Your task to perform on an android device: change timer sound Image 0: 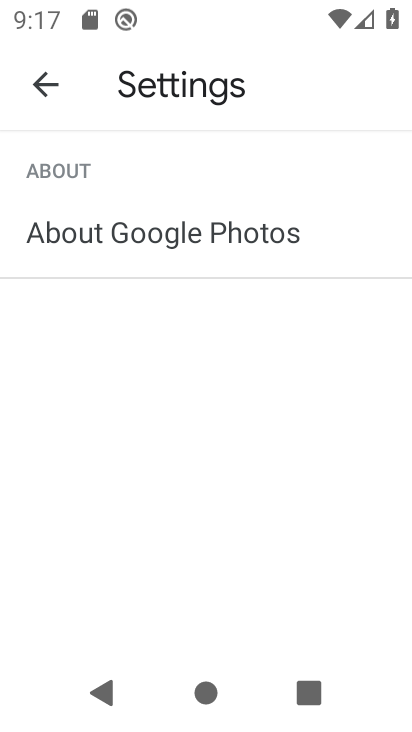
Step 0: press home button
Your task to perform on an android device: change timer sound Image 1: 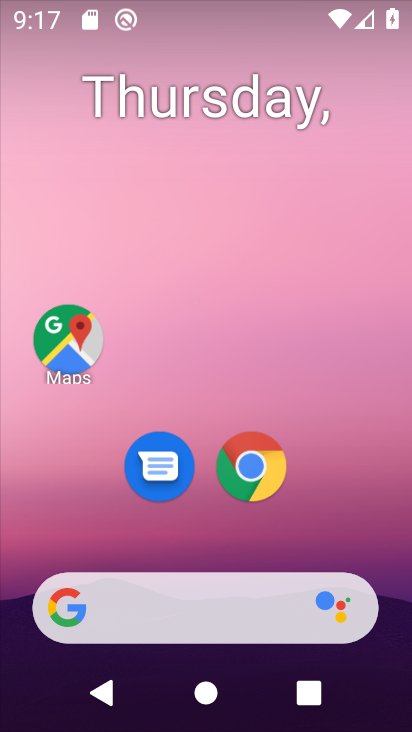
Step 1: drag from (368, 512) to (313, 145)
Your task to perform on an android device: change timer sound Image 2: 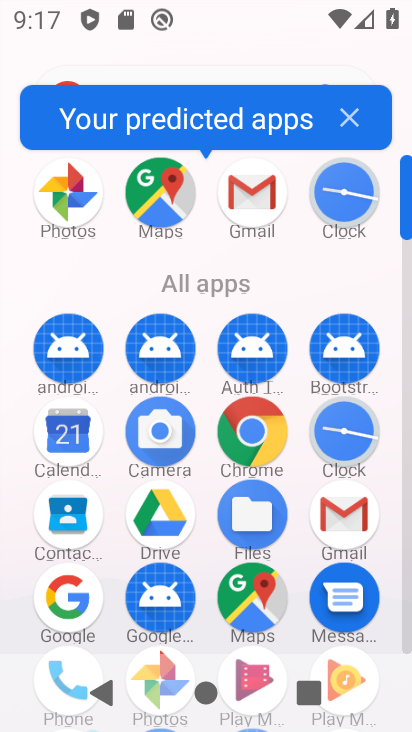
Step 2: click (338, 419)
Your task to perform on an android device: change timer sound Image 3: 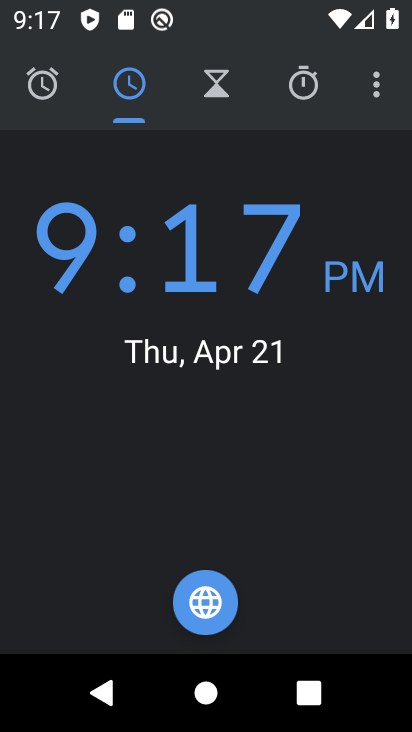
Step 3: click (388, 88)
Your task to perform on an android device: change timer sound Image 4: 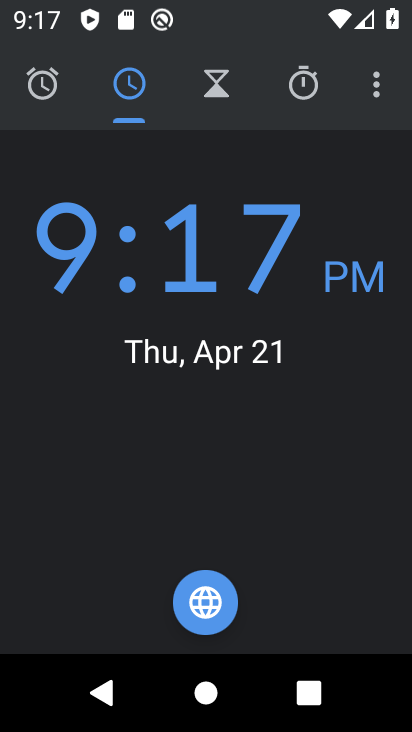
Step 4: click (385, 92)
Your task to perform on an android device: change timer sound Image 5: 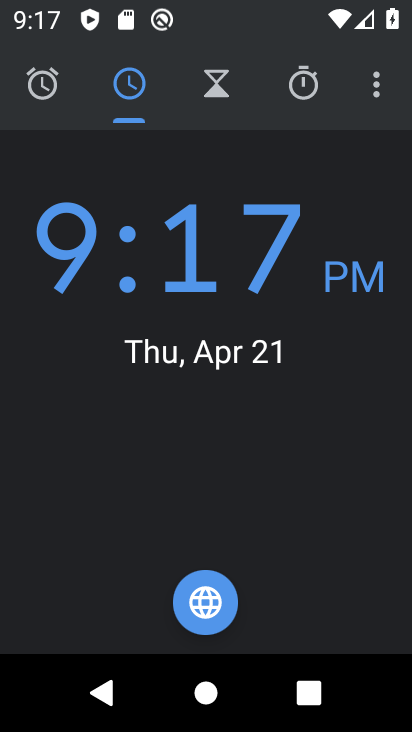
Step 5: click (378, 90)
Your task to perform on an android device: change timer sound Image 6: 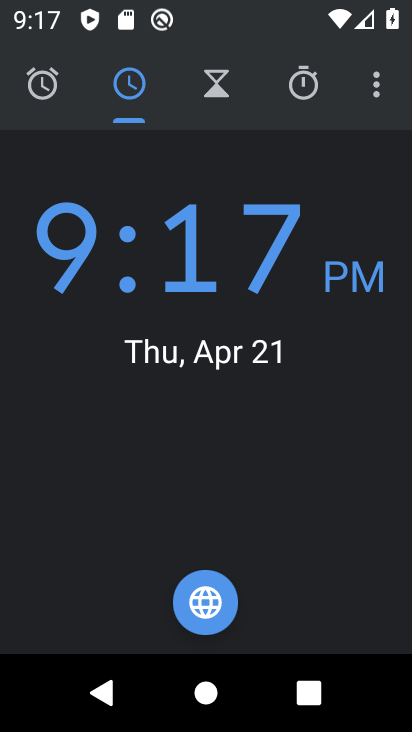
Step 6: click (379, 88)
Your task to perform on an android device: change timer sound Image 7: 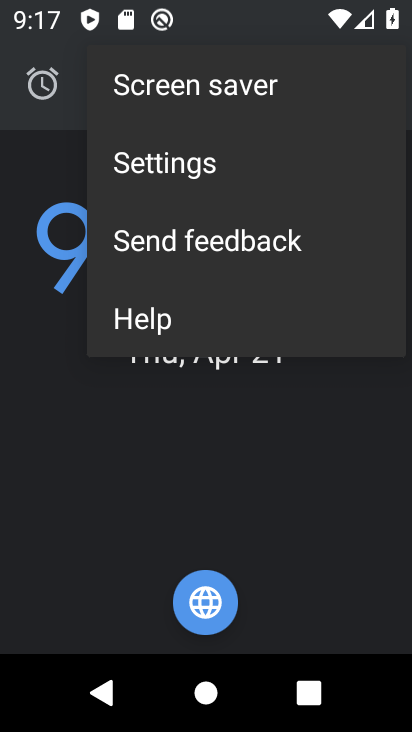
Step 7: click (241, 158)
Your task to perform on an android device: change timer sound Image 8: 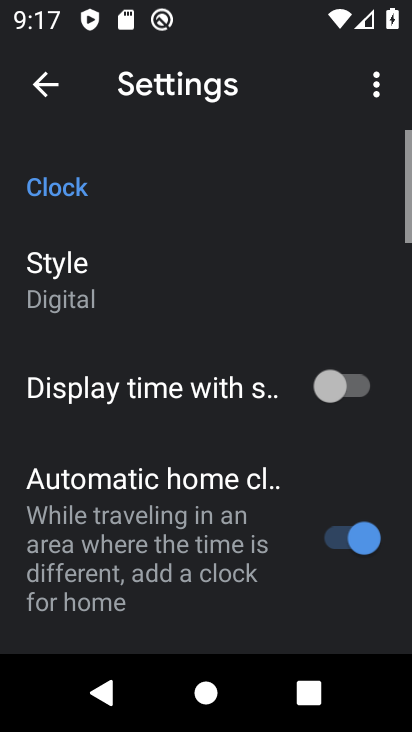
Step 8: drag from (230, 469) to (235, 239)
Your task to perform on an android device: change timer sound Image 9: 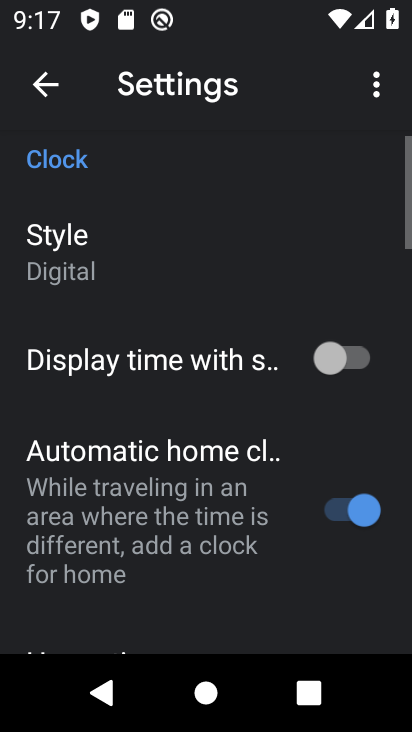
Step 9: drag from (226, 525) to (226, 242)
Your task to perform on an android device: change timer sound Image 10: 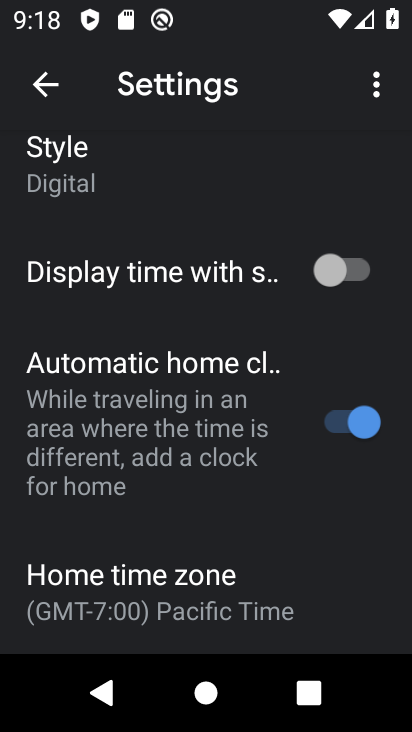
Step 10: drag from (343, 557) to (244, 172)
Your task to perform on an android device: change timer sound Image 11: 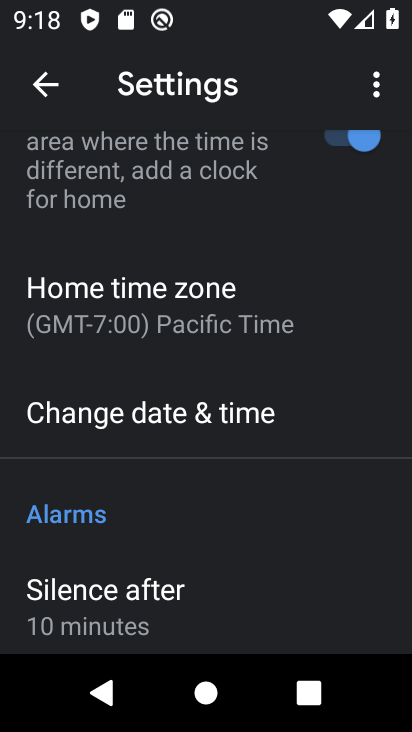
Step 11: drag from (328, 605) to (254, 160)
Your task to perform on an android device: change timer sound Image 12: 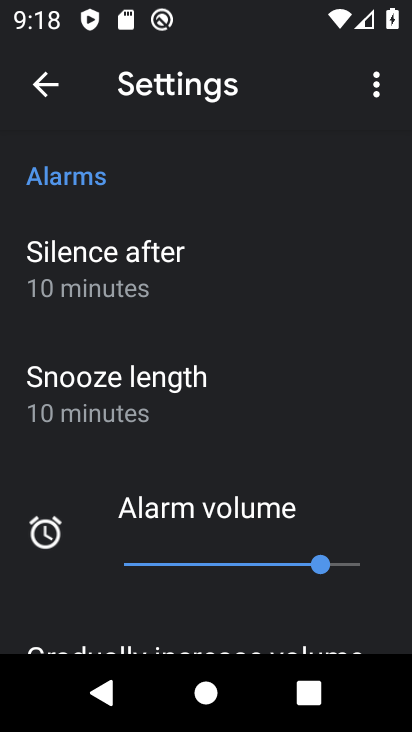
Step 12: drag from (389, 528) to (290, 132)
Your task to perform on an android device: change timer sound Image 13: 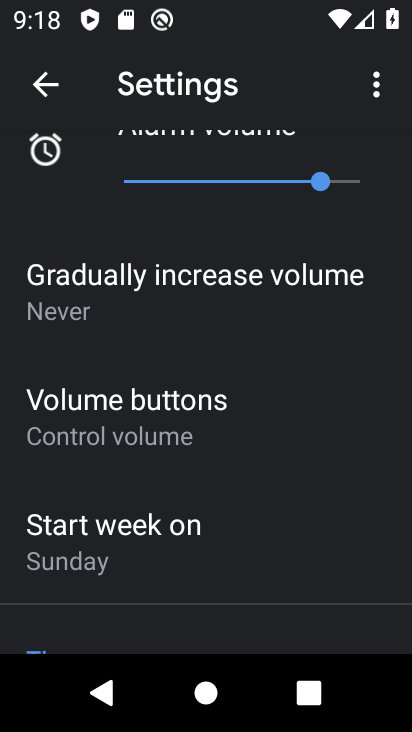
Step 13: drag from (333, 534) to (289, 191)
Your task to perform on an android device: change timer sound Image 14: 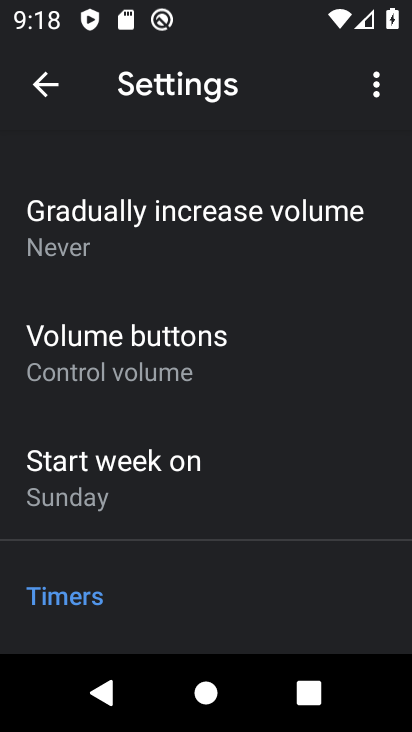
Step 14: drag from (312, 553) to (309, 226)
Your task to perform on an android device: change timer sound Image 15: 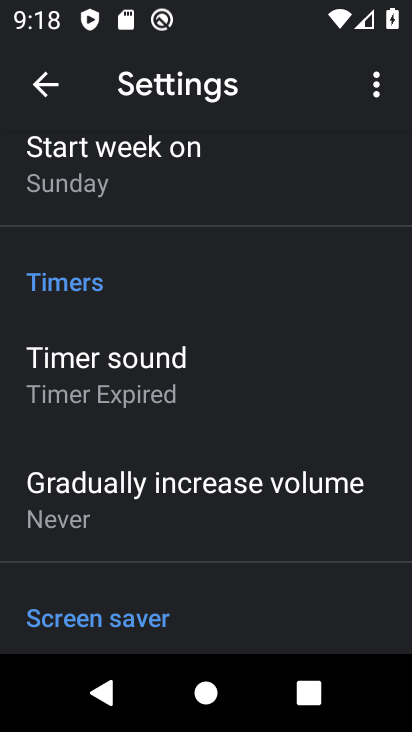
Step 15: click (167, 382)
Your task to perform on an android device: change timer sound Image 16: 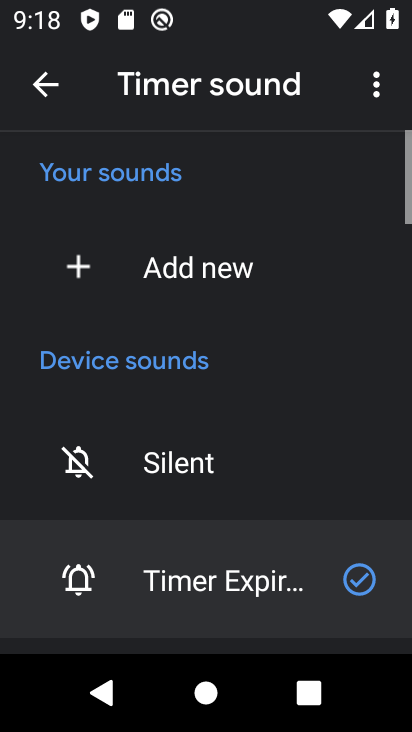
Step 16: drag from (283, 336) to (283, 194)
Your task to perform on an android device: change timer sound Image 17: 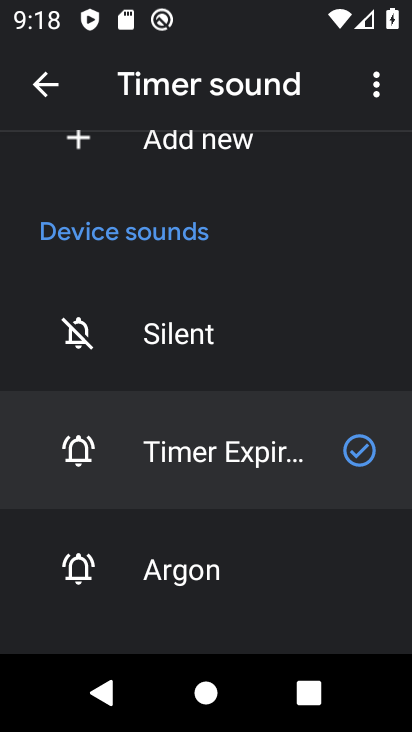
Step 17: click (217, 579)
Your task to perform on an android device: change timer sound Image 18: 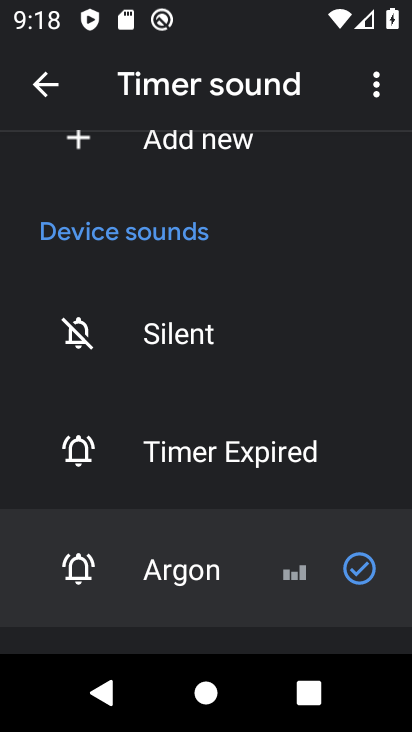
Step 18: task complete